Your task to perform on an android device: Open calendar and show me the third week of next month Image 0: 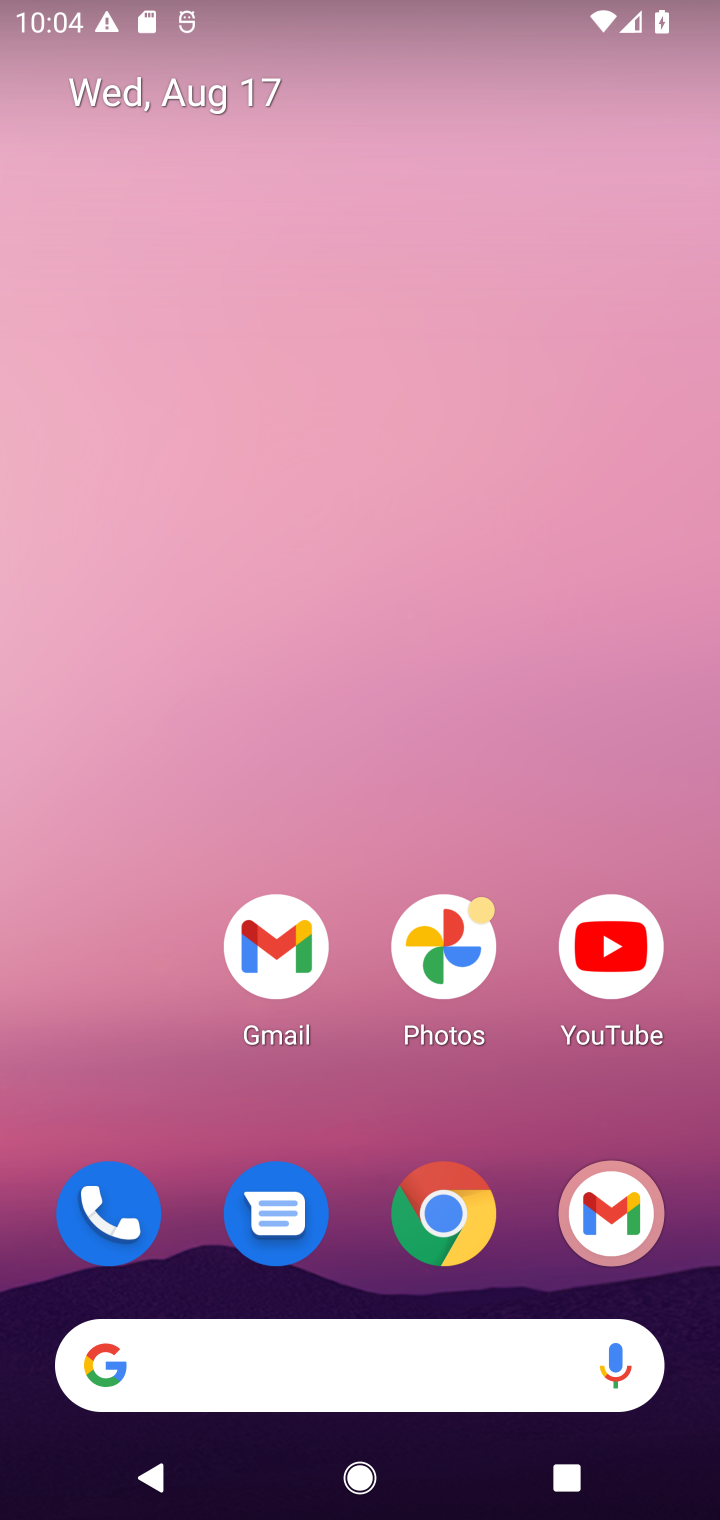
Step 0: drag from (294, 882) to (105, 2)
Your task to perform on an android device: Open calendar and show me the third week of next month Image 1: 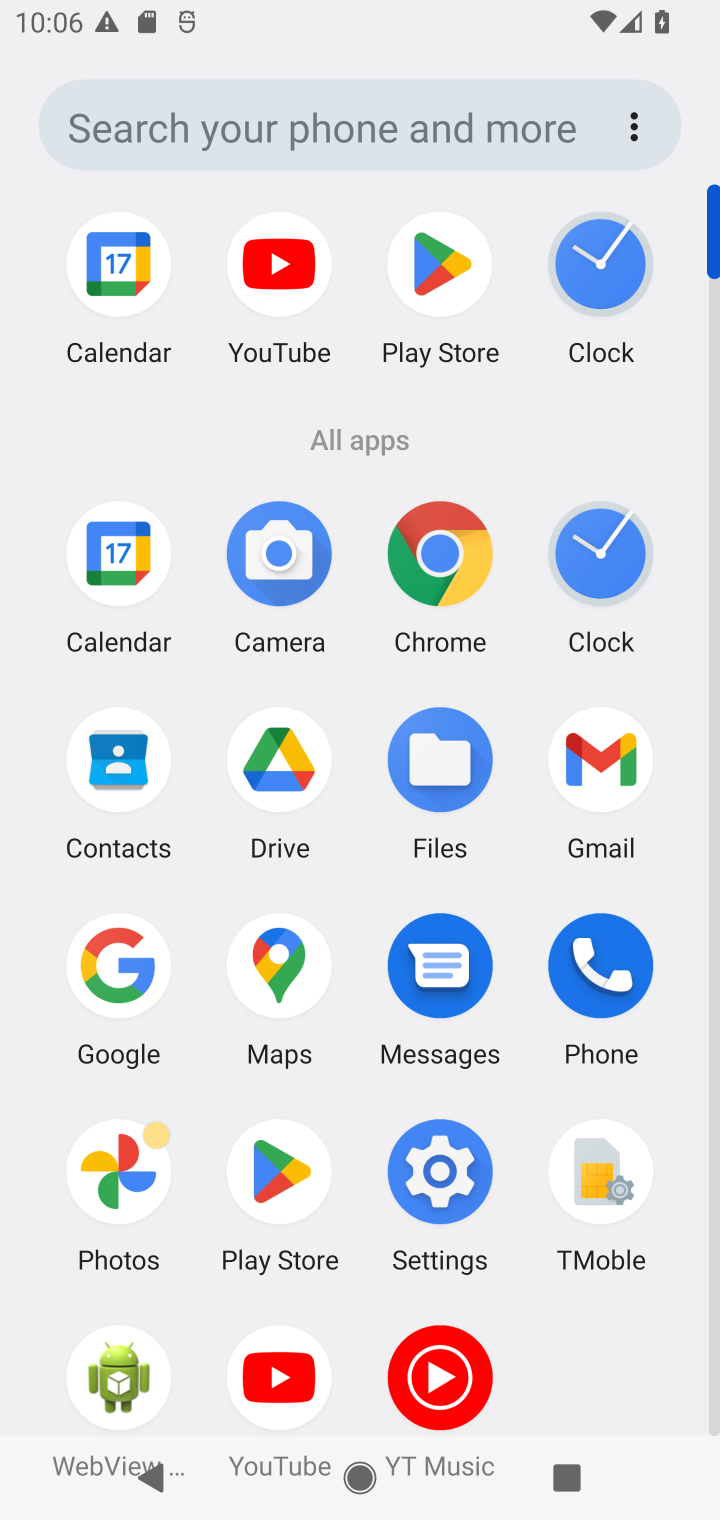
Step 1: click (114, 569)
Your task to perform on an android device: Open calendar and show me the third week of next month Image 2: 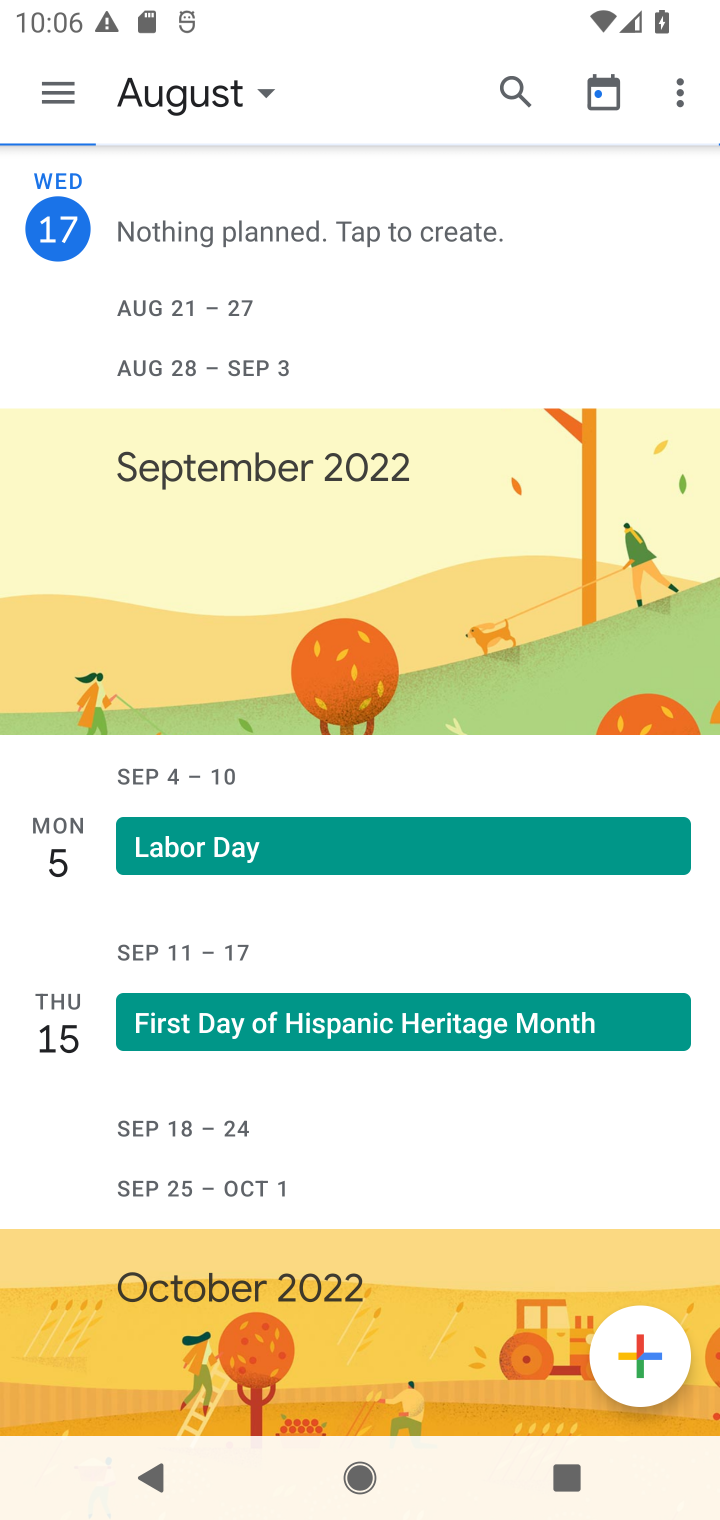
Step 2: click (186, 97)
Your task to perform on an android device: Open calendar and show me the third week of next month Image 3: 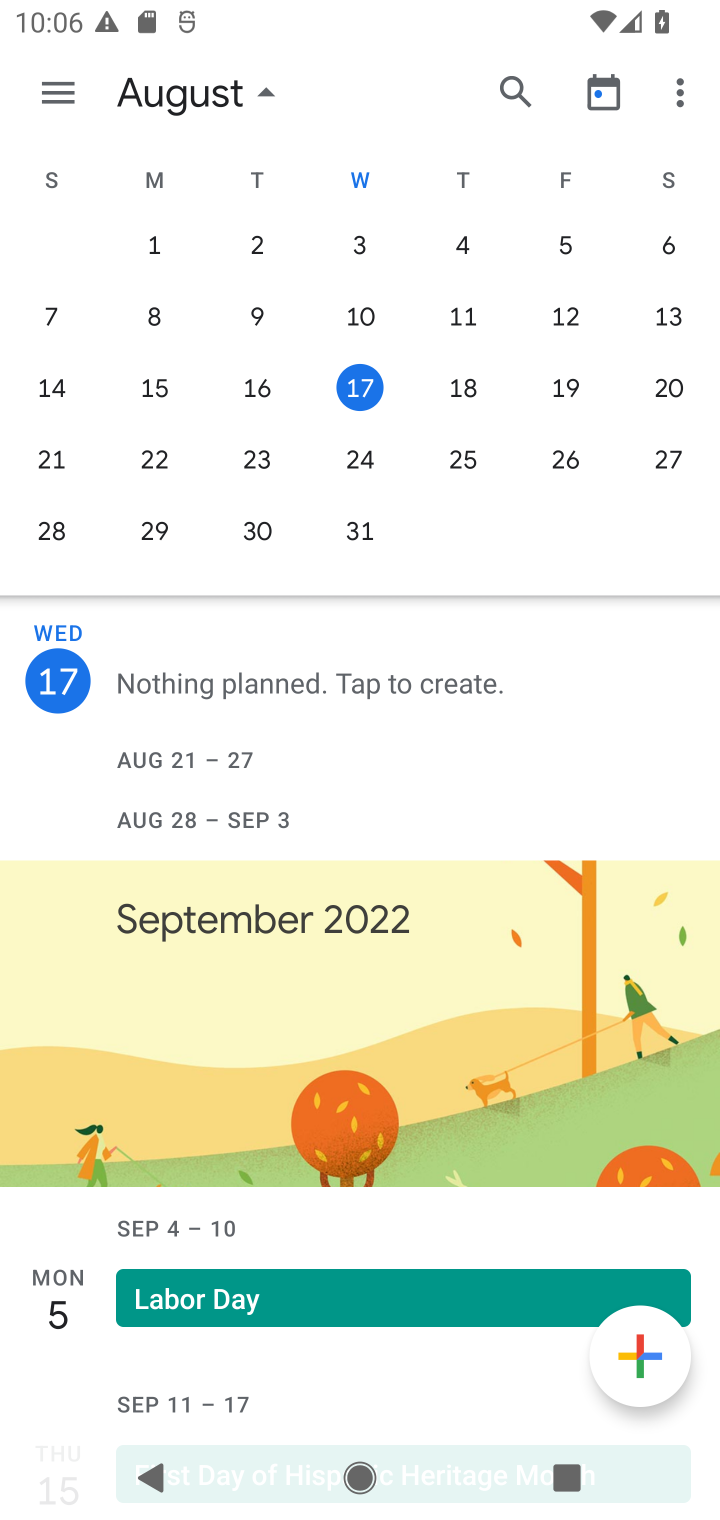
Step 3: drag from (613, 389) to (7, 405)
Your task to perform on an android device: Open calendar and show me the third week of next month Image 4: 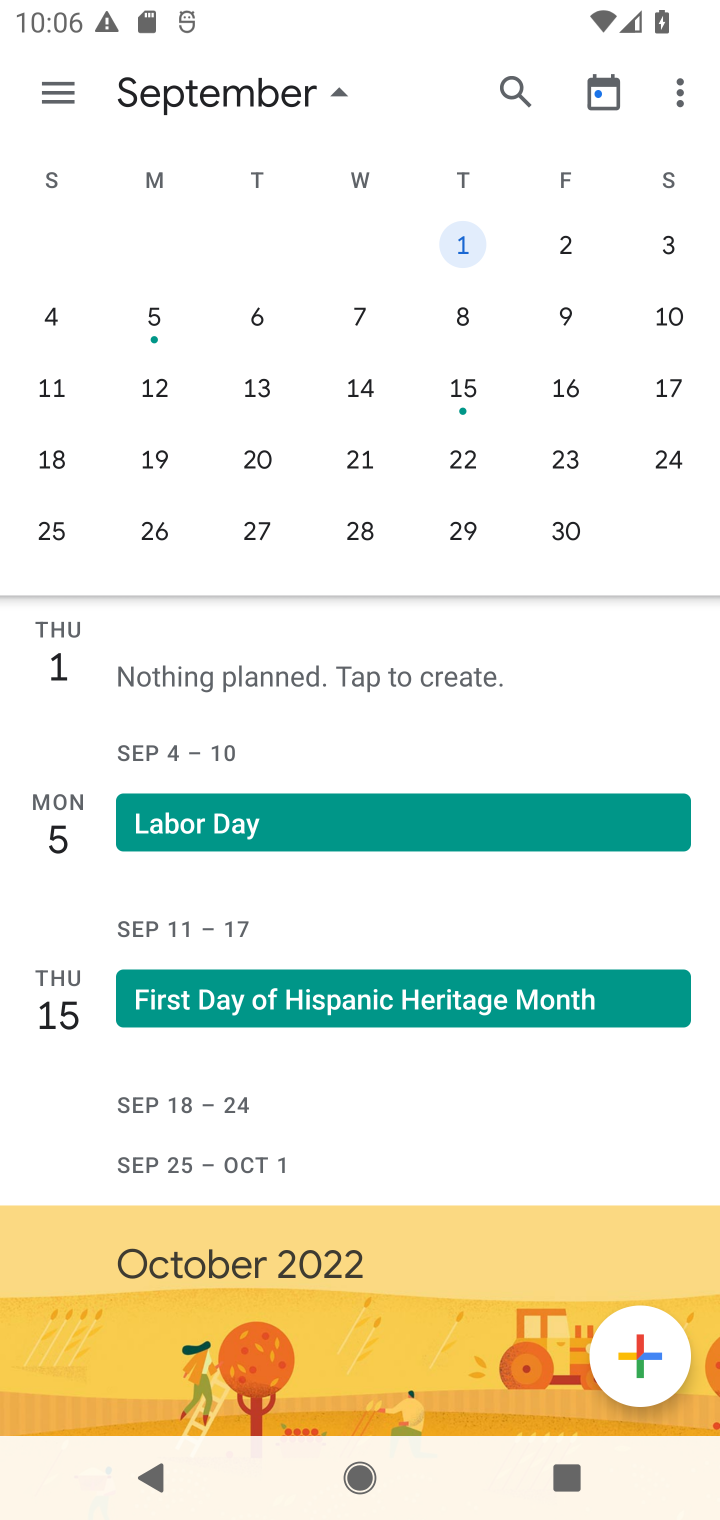
Step 4: click (42, 456)
Your task to perform on an android device: Open calendar and show me the third week of next month Image 5: 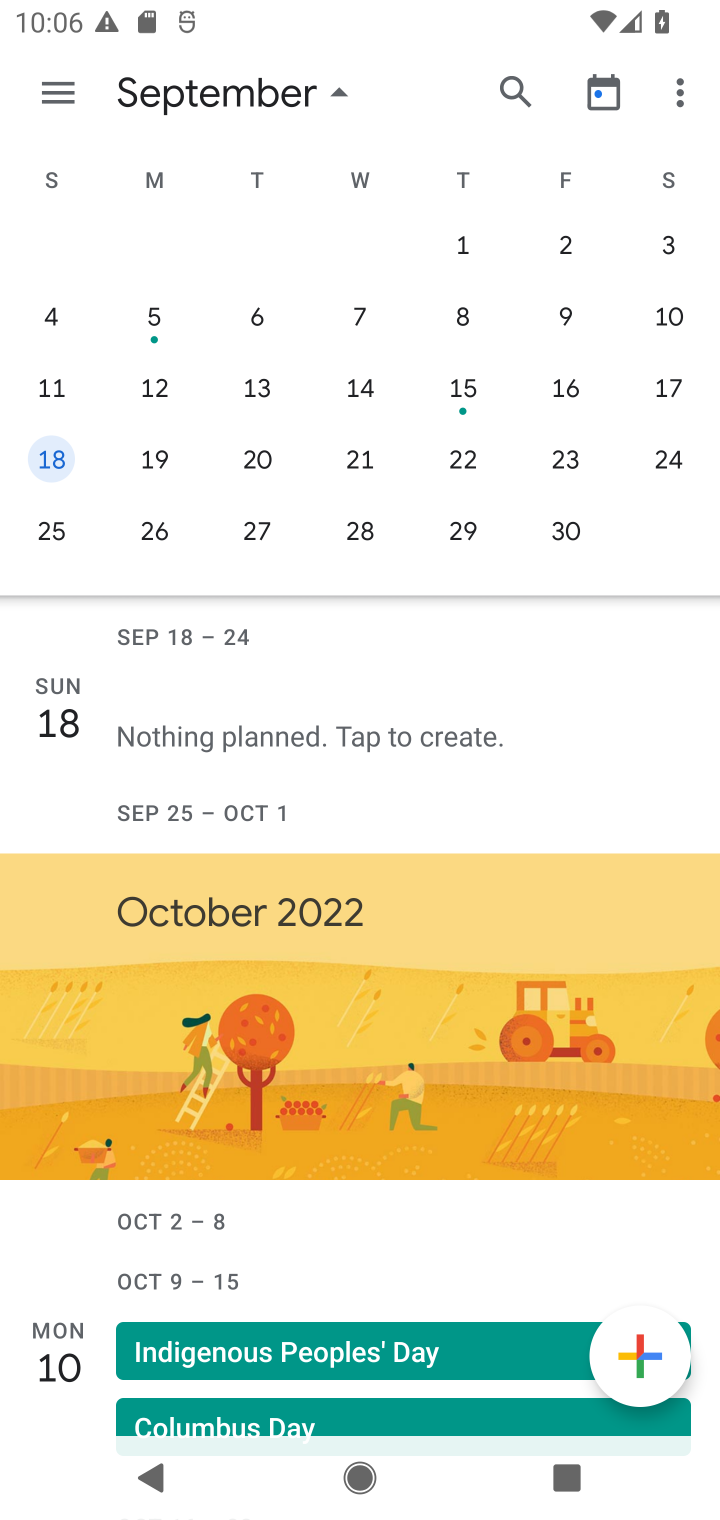
Step 5: task complete